Your task to perform on an android device: see tabs open on other devices in the chrome app Image 0: 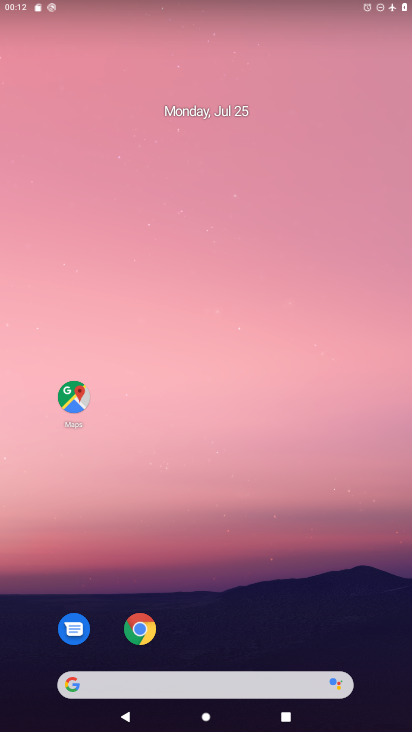
Step 0: drag from (180, 649) to (229, 61)
Your task to perform on an android device: see tabs open on other devices in the chrome app Image 1: 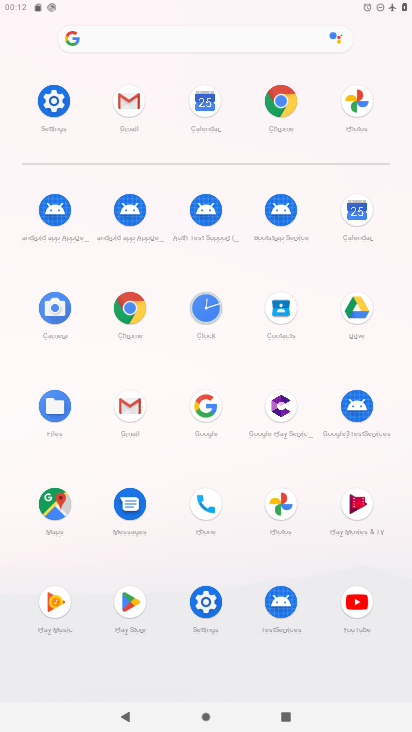
Step 1: click (129, 307)
Your task to perform on an android device: see tabs open on other devices in the chrome app Image 2: 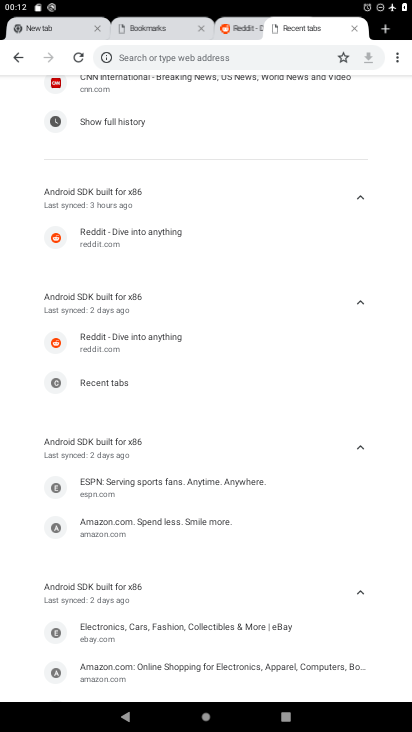
Step 2: task complete